Your task to perform on an android device: turn on improve location accuracy Image 0: 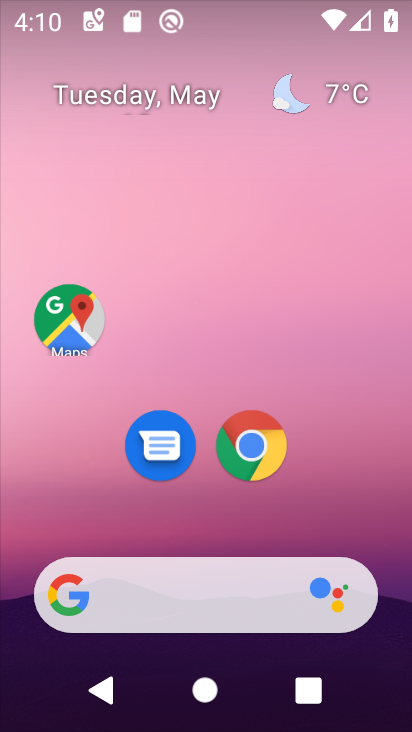
Step 0: drag from (230, 520) to (282, 2)
Your task to perform on an android device: turn on improve location accuracy Image 1: 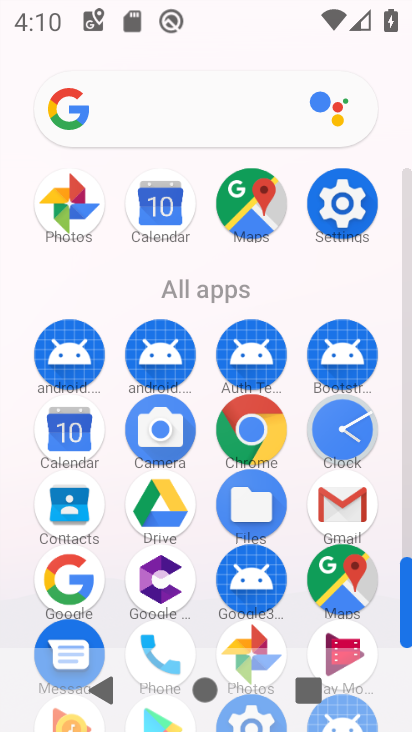
Step 1: click (342, 224)
Your task to perform on an android device: turn on improve location accuracy Image 2: 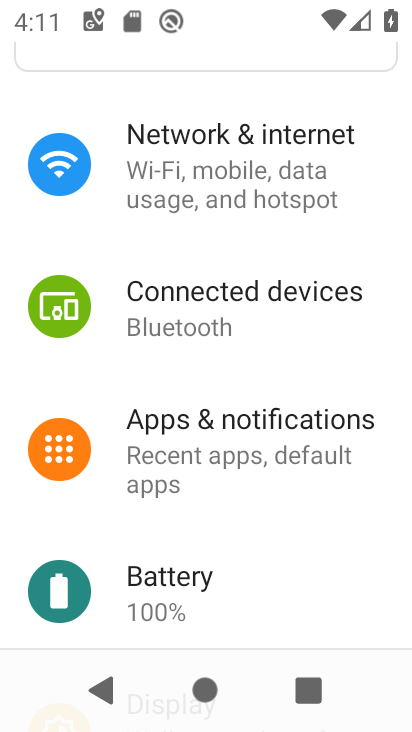
Step 2: drag from (231, 576) to (290, 293)
Your task to perform on an android device: turn on improve location accuracy Image 3: 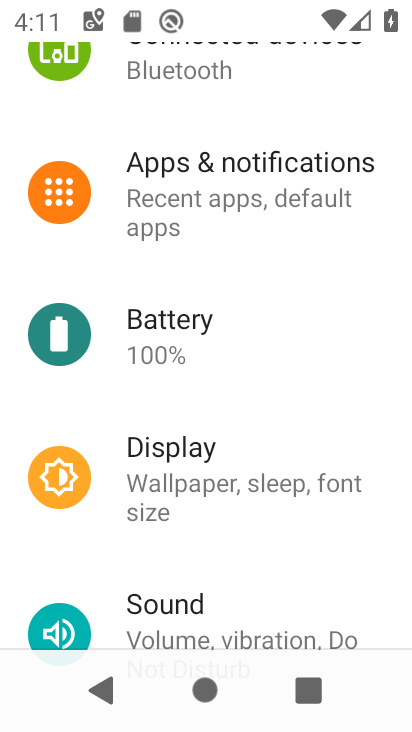
Step 3: drag from (258, 546) to (303, 161)
Your task to perform on an android device: turn on improve location accuracy Image 4: 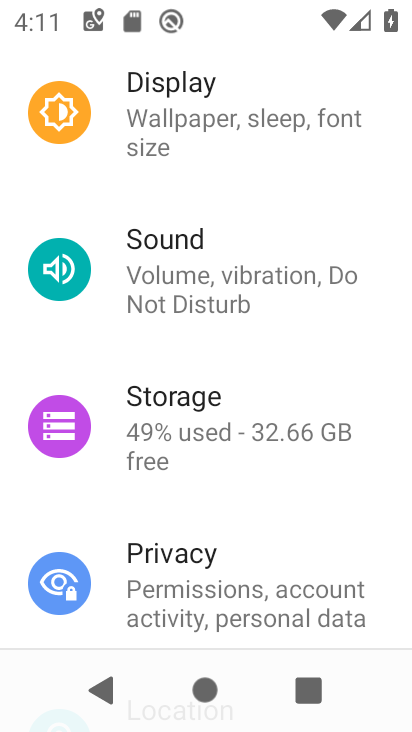
Step 4: drag from (186, 557) to (245, 189)
Your task to perform on an android device: turn on improve location accuracy Image 5: 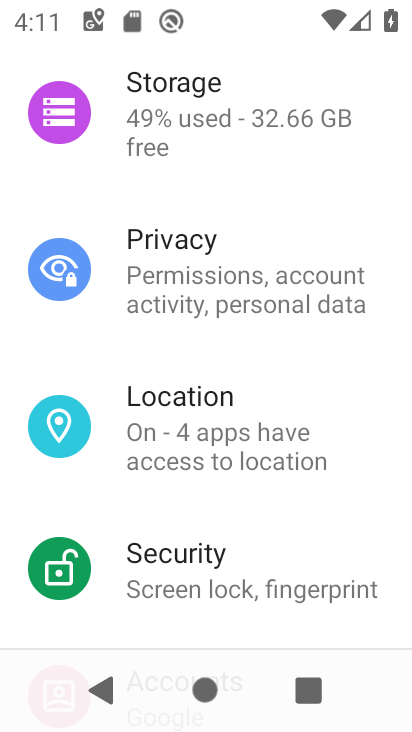
Step 5: click (207, 461)
Your task to perform on an android device: turn on improve location accuracy Image 6: 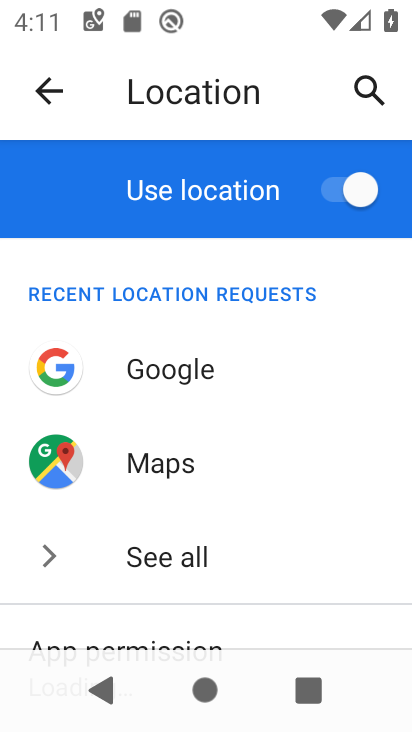
Step 6: drag from (235, 529) to (269, 174)
Your task to perform on an android device: turn on improve location accuracy Image 7: 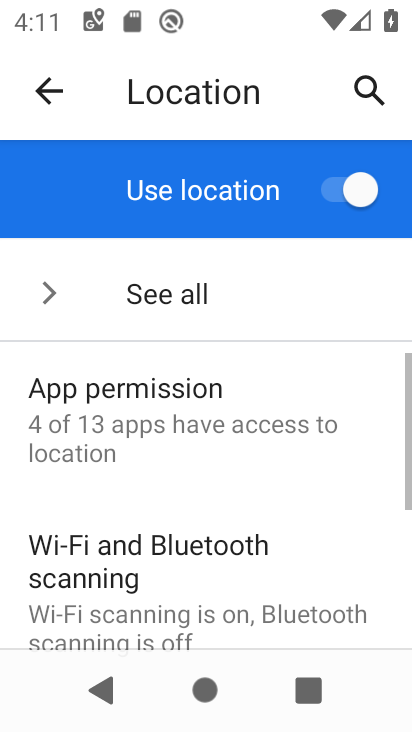
Step 7: drag from (204, 406) to (266, 147)
Your task to perform on an android device: turn on improve location accuracy Image 8: 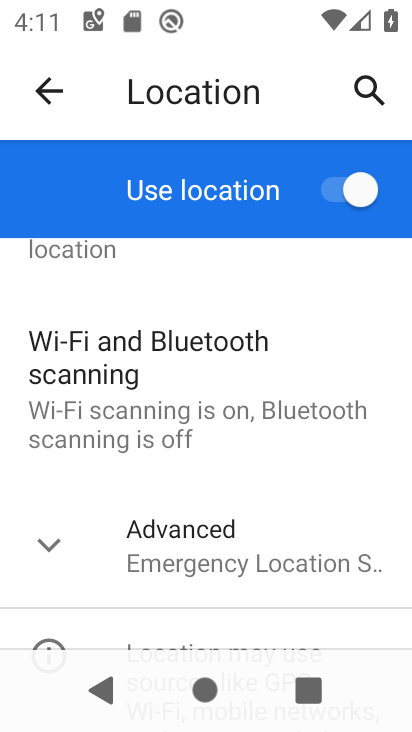
Step 8: click (208, 562)
Your task to perform on an android device: turn on improve location accuracy Image 9: 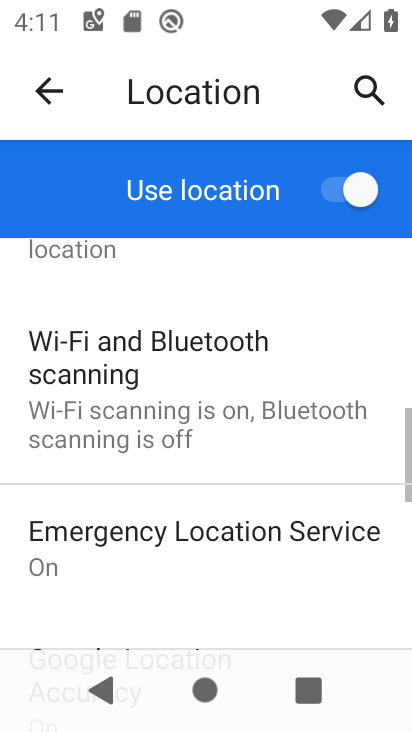
Step 9: drag from (167, 576) to (221, 225)
Your task to perform on an android device: turn on improve location accuracy Image 10: 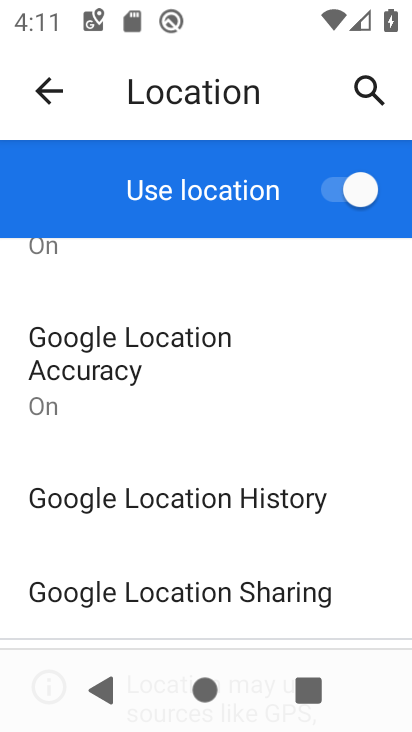
Step 10: click (142, 392)
Your task to perform on an android device: turn on improve location accuracy Image 11: 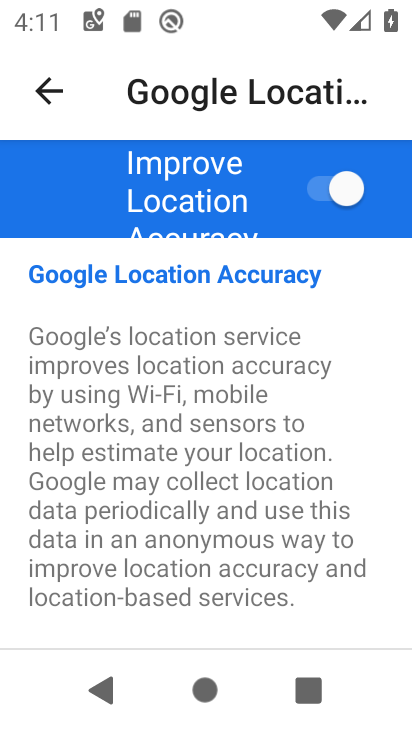
Step 11: task complete